Your task to perform on an android device: toggle pop-ups in chrome Image 0: 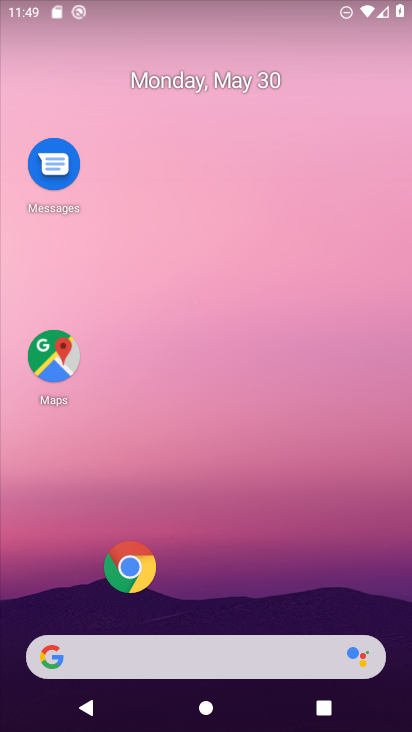
Step 0: drag from (318, 551) to (5, 6)
Your task to perform on an android device: toggle pop-ups in chrome Image 1: 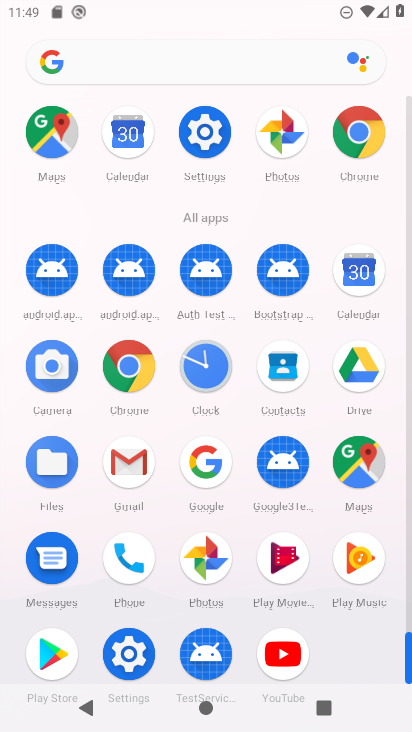
Step 1: drag from (7, 609) to (3, 236)
Your task to perform on an android device: toggle pop-ups in chrome Image 2: 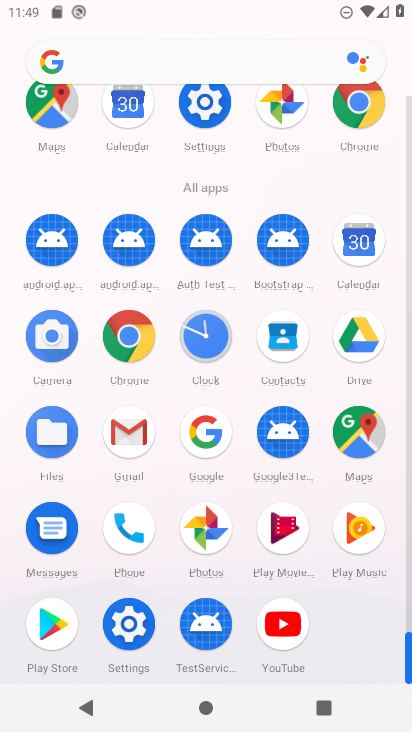
Step 2: click (131, 331)
Your task to perform on an android device: toggle pop-ups in chrome Image 3: 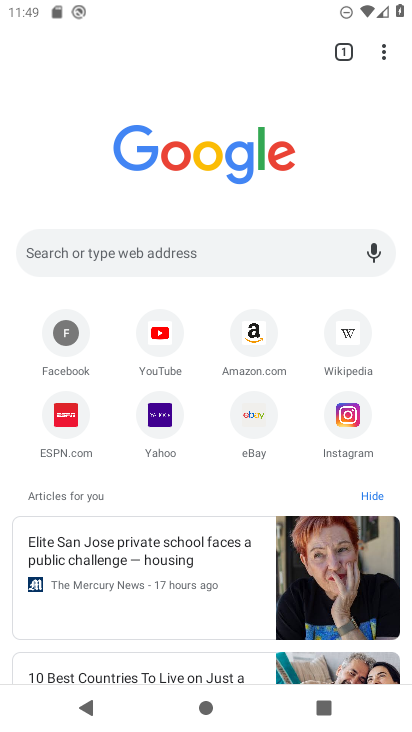
Step 3: drag from (380, 49) to (196, 439)
Your task to perform on an android device: toggle pop-ups in chrome Image 4: 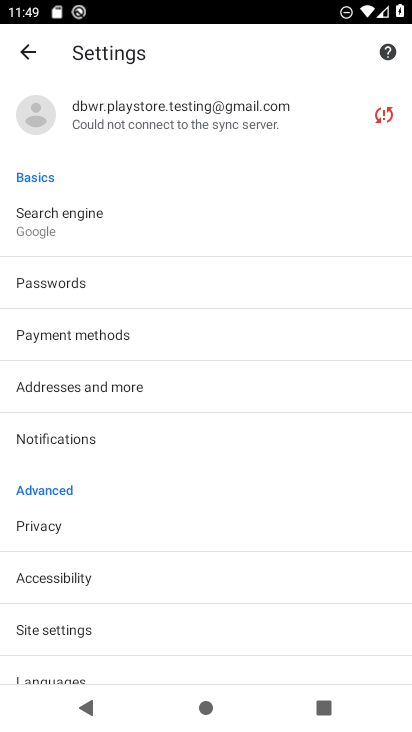
Step 4: click (66, 621)
Your task to perform on an android device: toggle pop-ups in chrome Image 5: 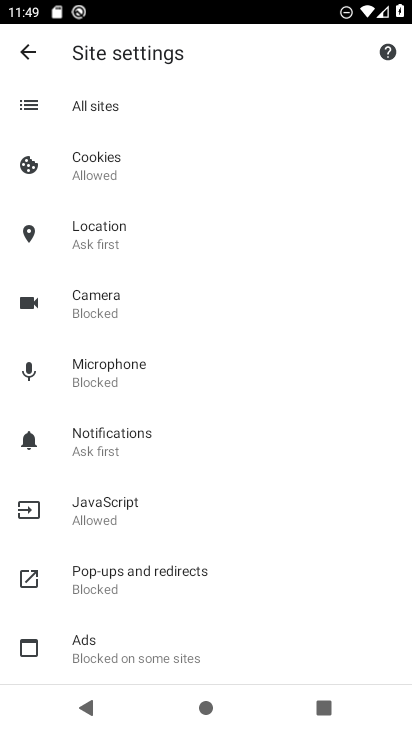
Step 5: click (120, 580)
Your task to perform on an android device: toggle pop-ups in chrome Image 6: 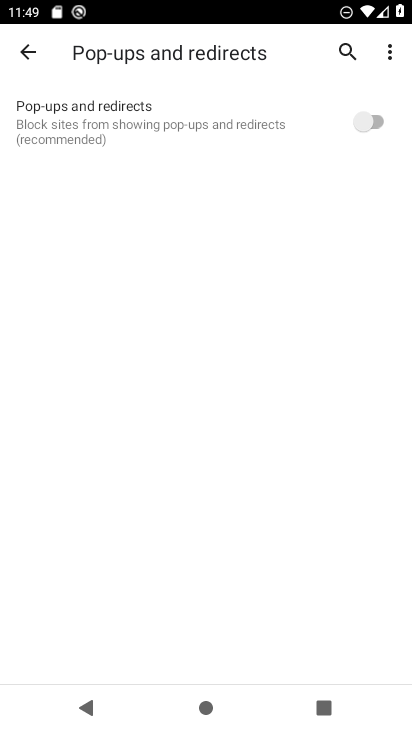
Step 6: click (383, 117)
Your task to perform on an android device: toggle pop-ups in chrome Image 7: 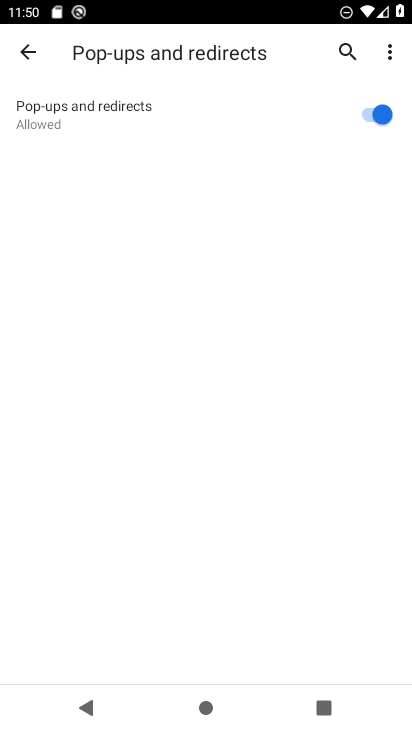
Step 7: task complete